Your task to perform on an android device: turn on bluetooth scan Image 0: 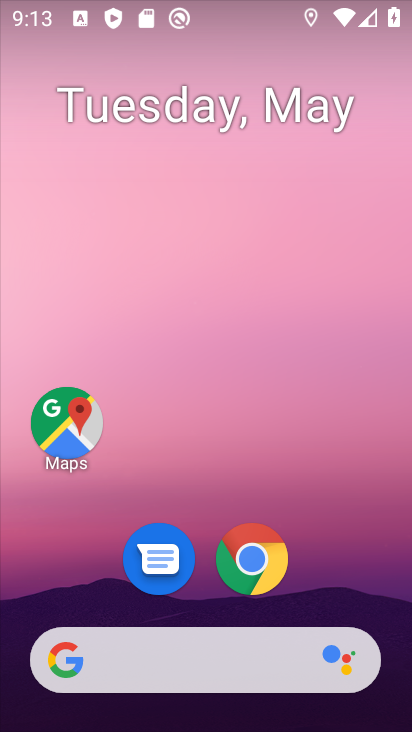
Step 0: drag from (236, 437) to (253, 23)
Your task to perform on an android device: turn on bluetooth scan Image 1: 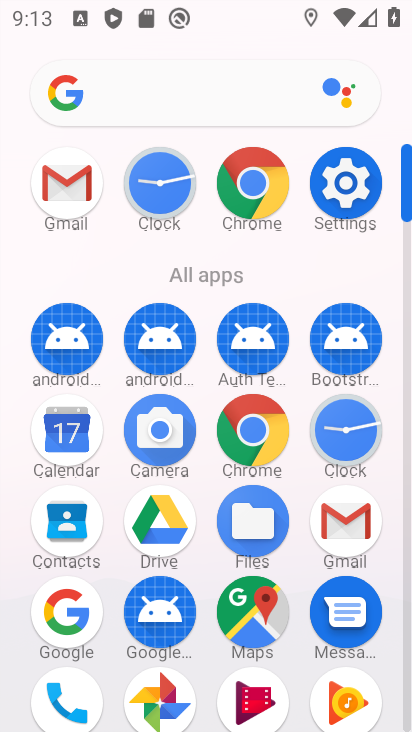
Step 1: click (345, 178)
Your task to perform on an android device: turn on bluetooth scan Image 2: 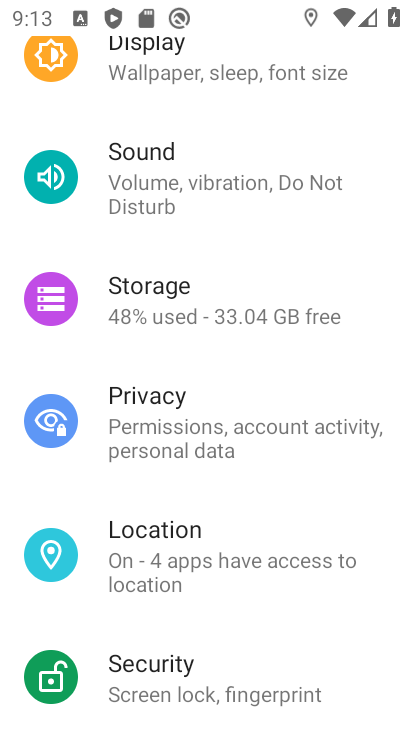
Step 2: click (132, 548)
Your task to perform on an android device: turn on bluetooth scan Image 3: 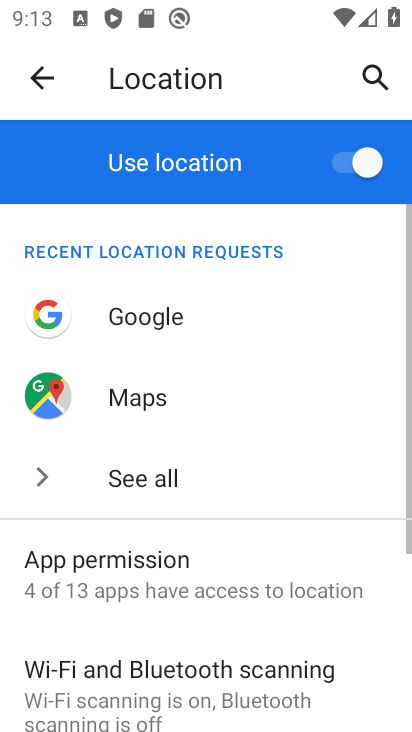
Step 3: click (223, 680)
Your task to perform on an android device: turn on bluetooth scan Image 4: 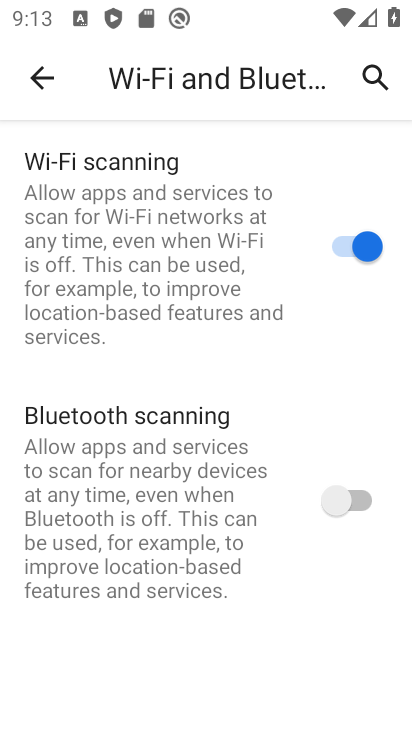
Step 4: click (363, 495)
Your task to perform on an android device: turn on bluetooth scan Image 5: 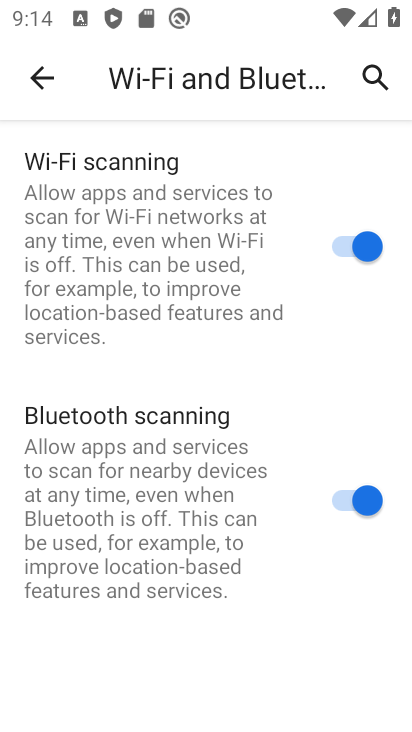
Step 5: task complete